Your task to perform on an android device: open app "HBO Max: Stream TV & Movies" (install if not already installed) and go to login screen Image 0: 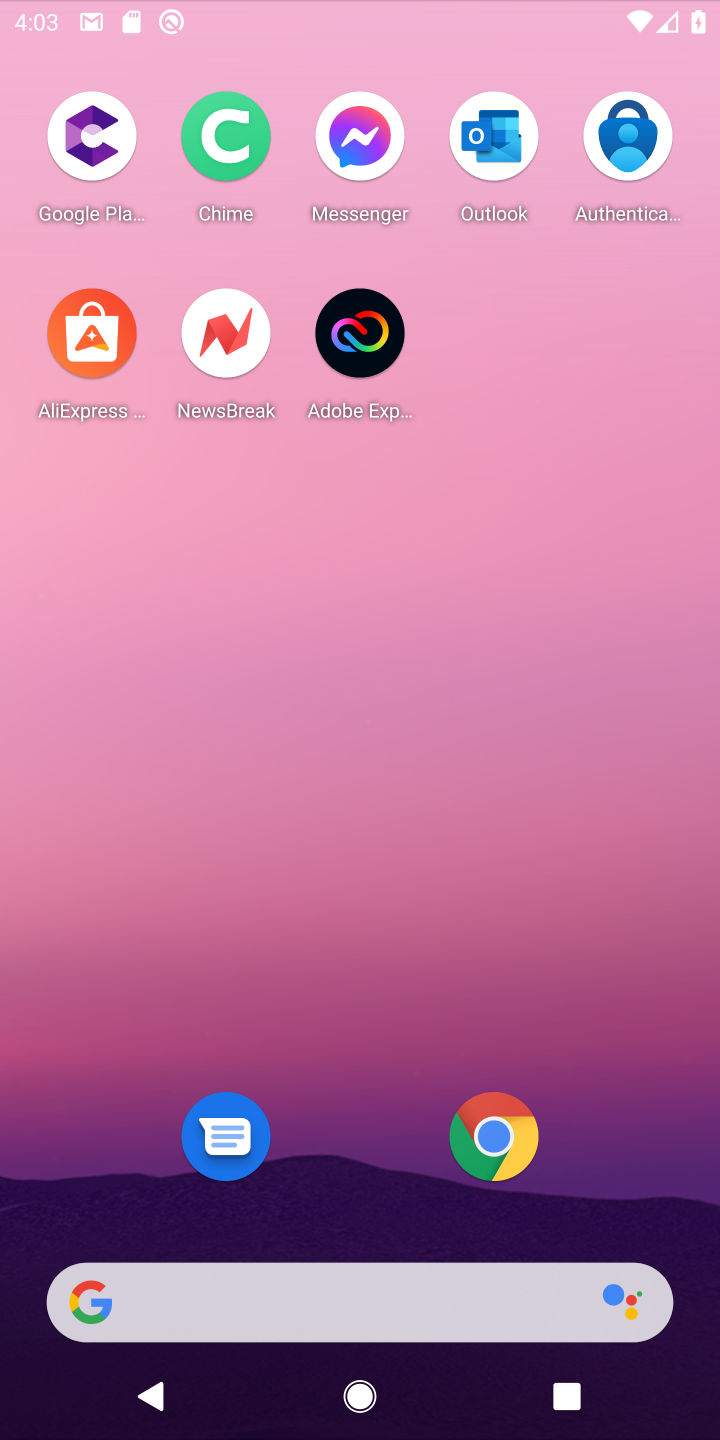
Step 0: press home button
Your task to perform on an android device: open app "HBO Max: Stream TV & Movies" (install if not already installed) and go to login screen Image 1: 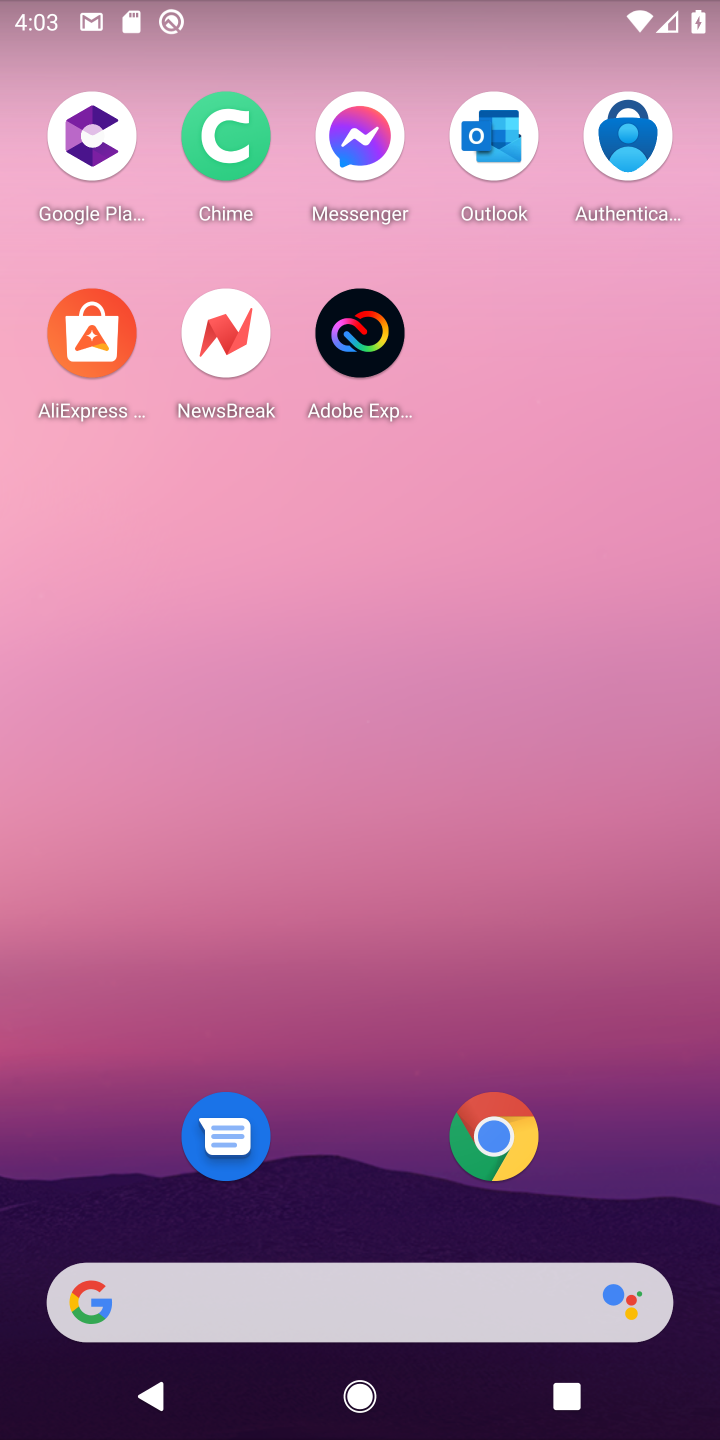
Step 1: drag from (315, 880) to (357, 13)
Your task to perform on an android device: open app "HBO Max: Stream TV & Movies" (install if not already installed) and go to login screen Image 2: 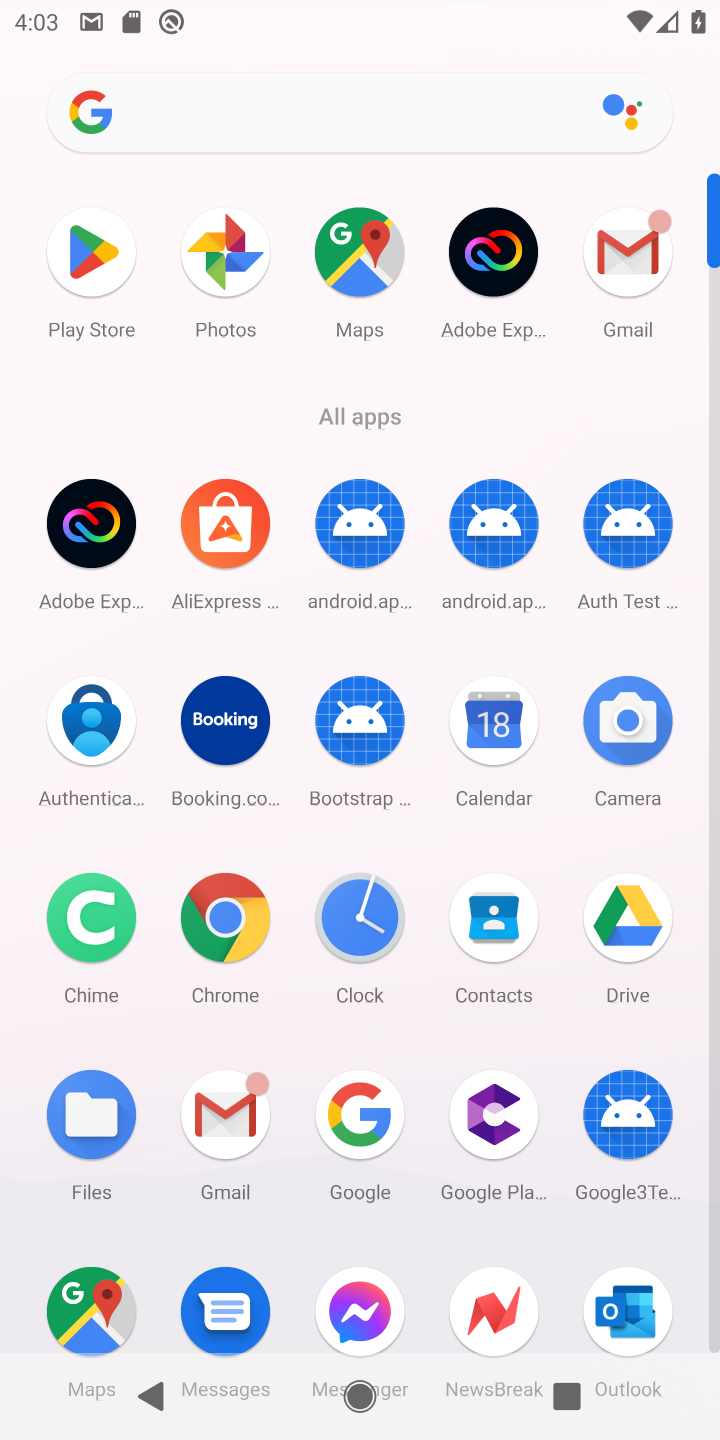
Step 2: click (87, 285)
Your task to perform on an android device: open app "HBO Max: Stream TV & Movies" (install if not already installed) and go to login screen Image 3: 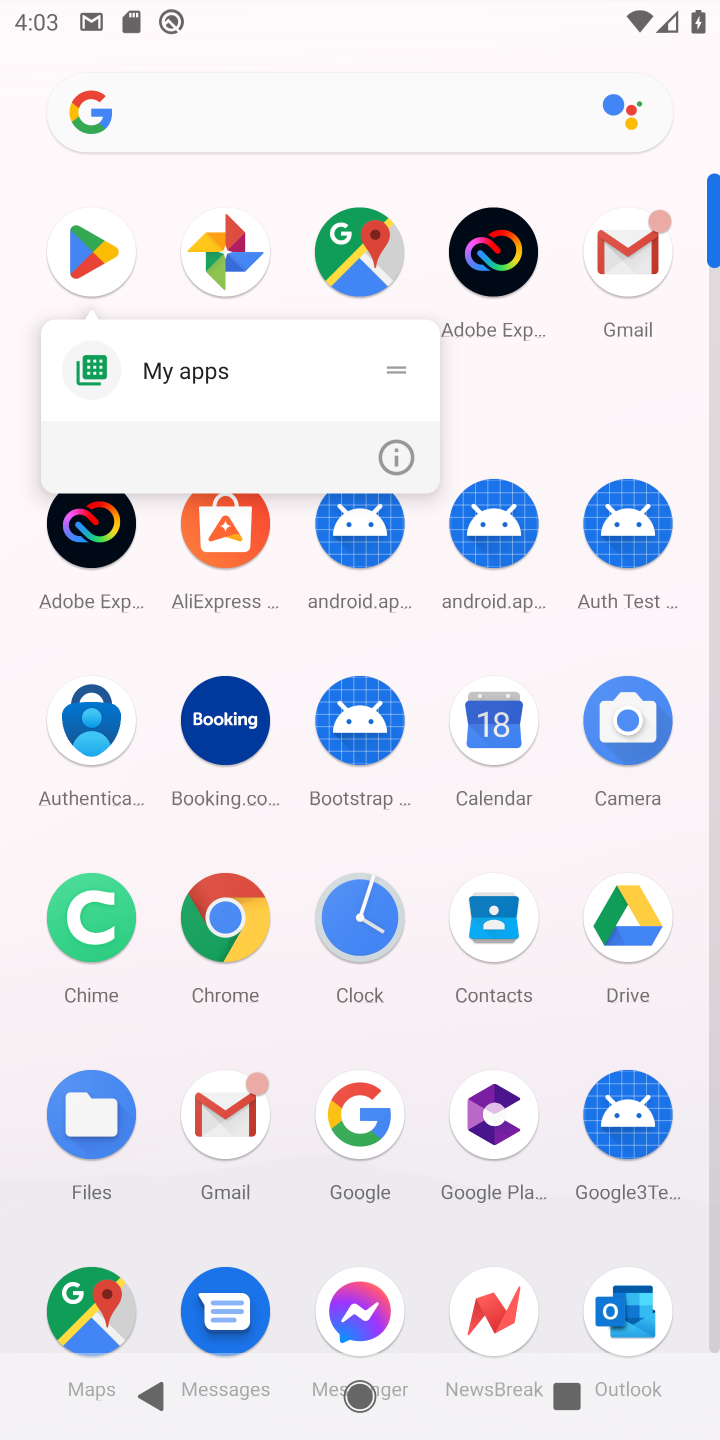
Step 3: click (92, 264)
Your task to perform on an android device: open app "HBO Max: Stream TV & Movies" (install if not already installed) and go to login screen Image 4: 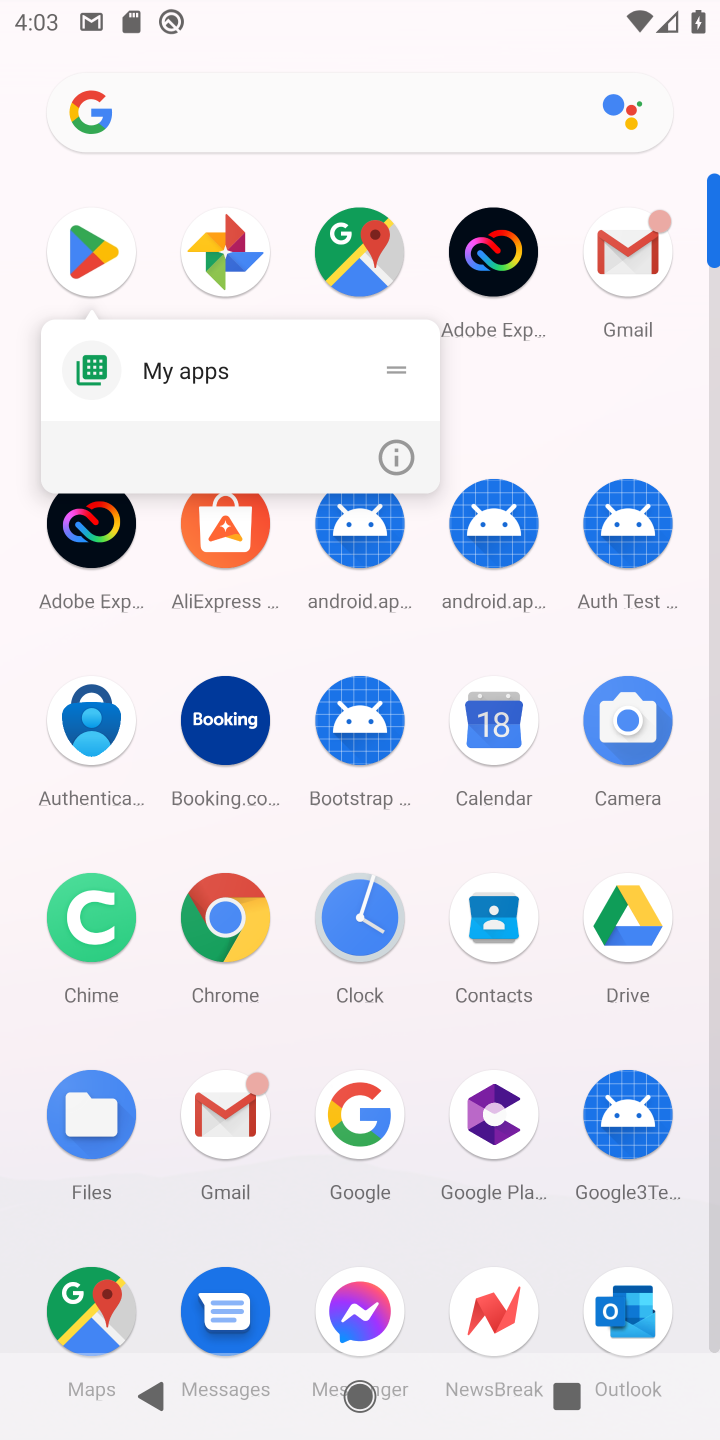
Step 4: click (90, 266)
Your task to perform on an android device: open app "HBO Max: Stream TV & Movies" (install if not already installed) and go to login screen Image 5: 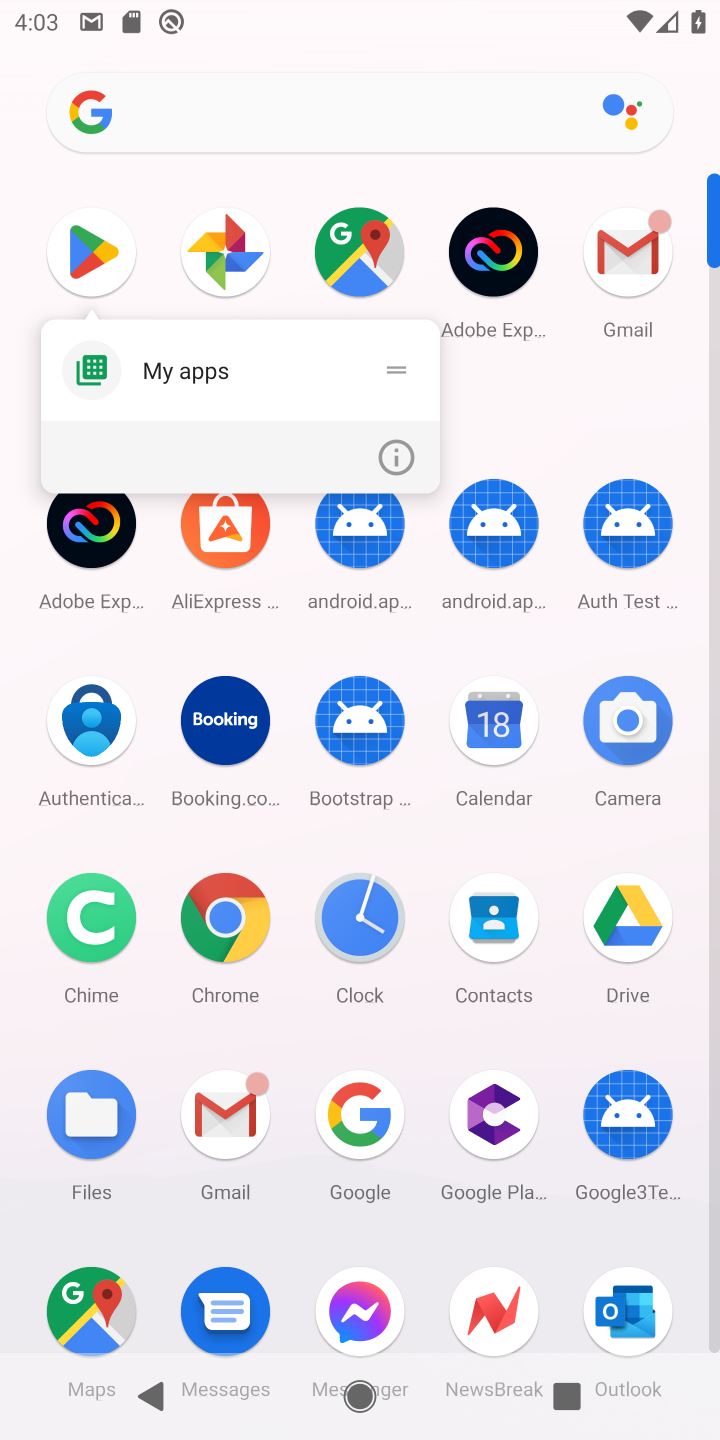
Step 5: click (90, 266)
Your task to perform on an android device: open app "HBO Max: Stream TV & Movies" (install if not already installed) and go to login screen Image 6: 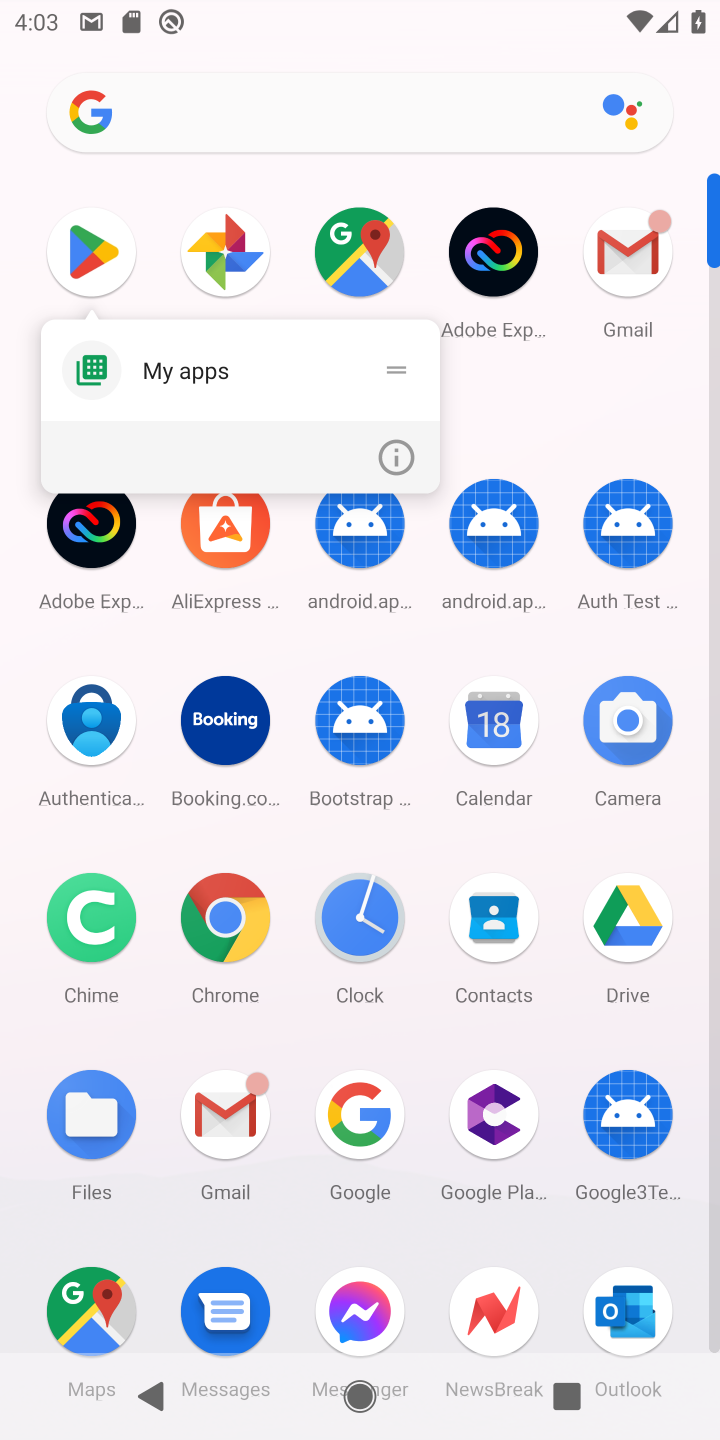
Step 6: click (65, 226)
Your task to perform on an android device: open app "HBO Max: Stream TV & Movies" (install if not already installed) and go to login screen Image 7: 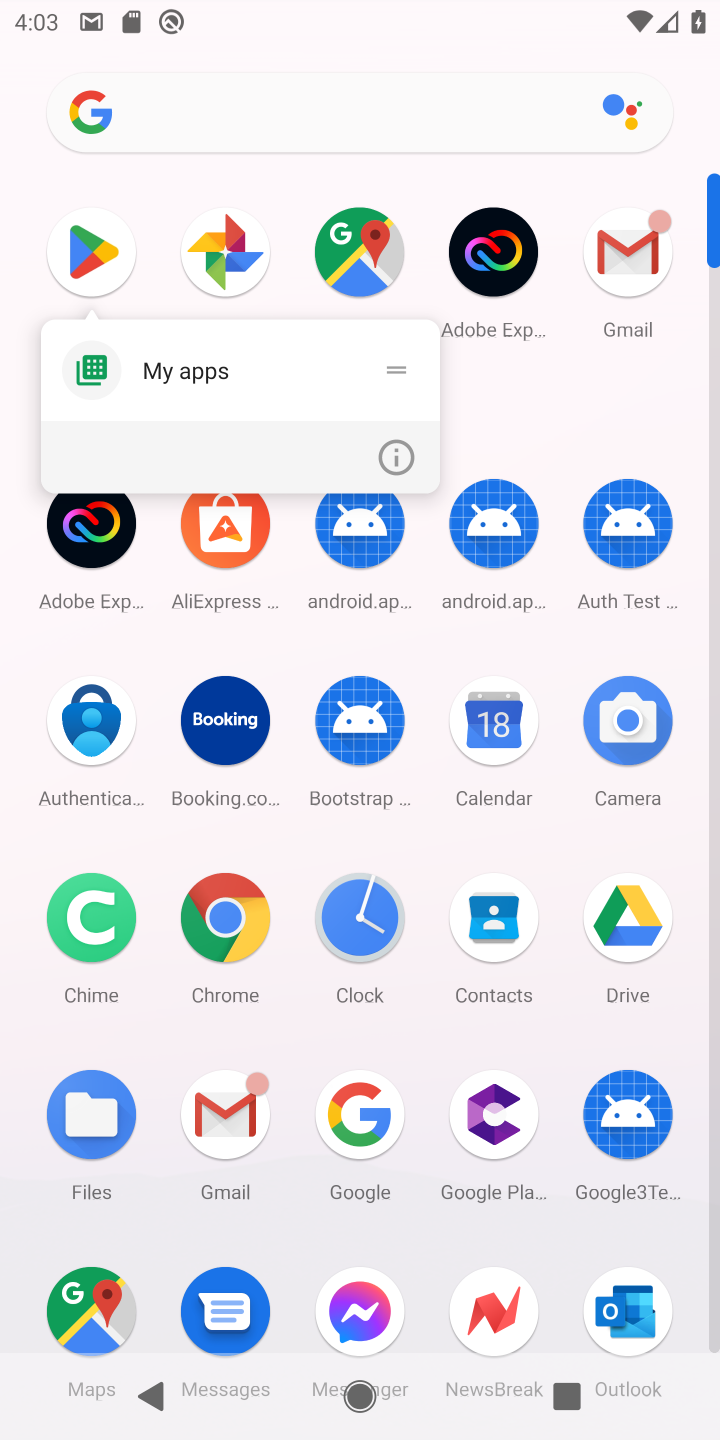
Step 7: click (71, 226)
Your task to perform on an android device: open app "HBO Max: Stream TV & Movies" (install if not already installed) and go to login screen Image 8: 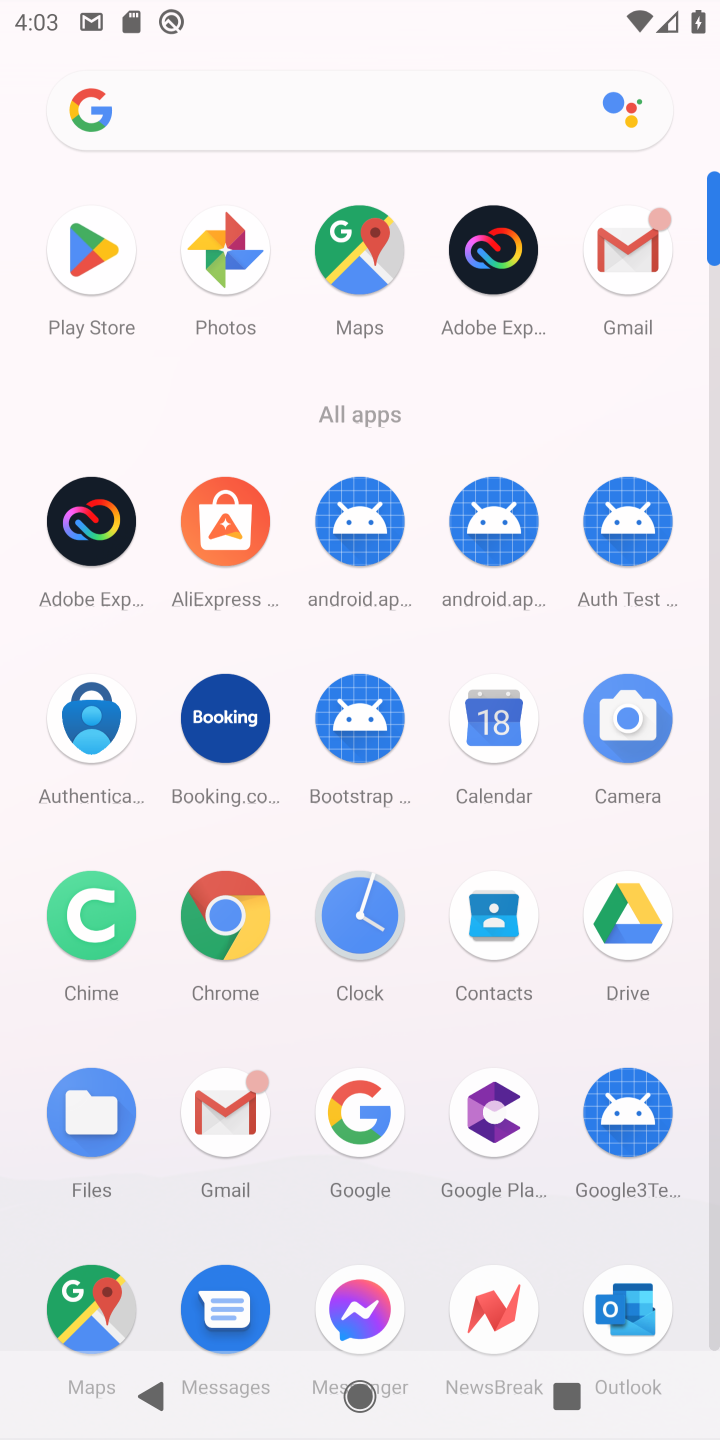
Step 8: click (77, 232)
Your task to perform on an android device: open app "HBO Max: Stream TV & Movies" (install if not already installed) and go to login screen Image 9: 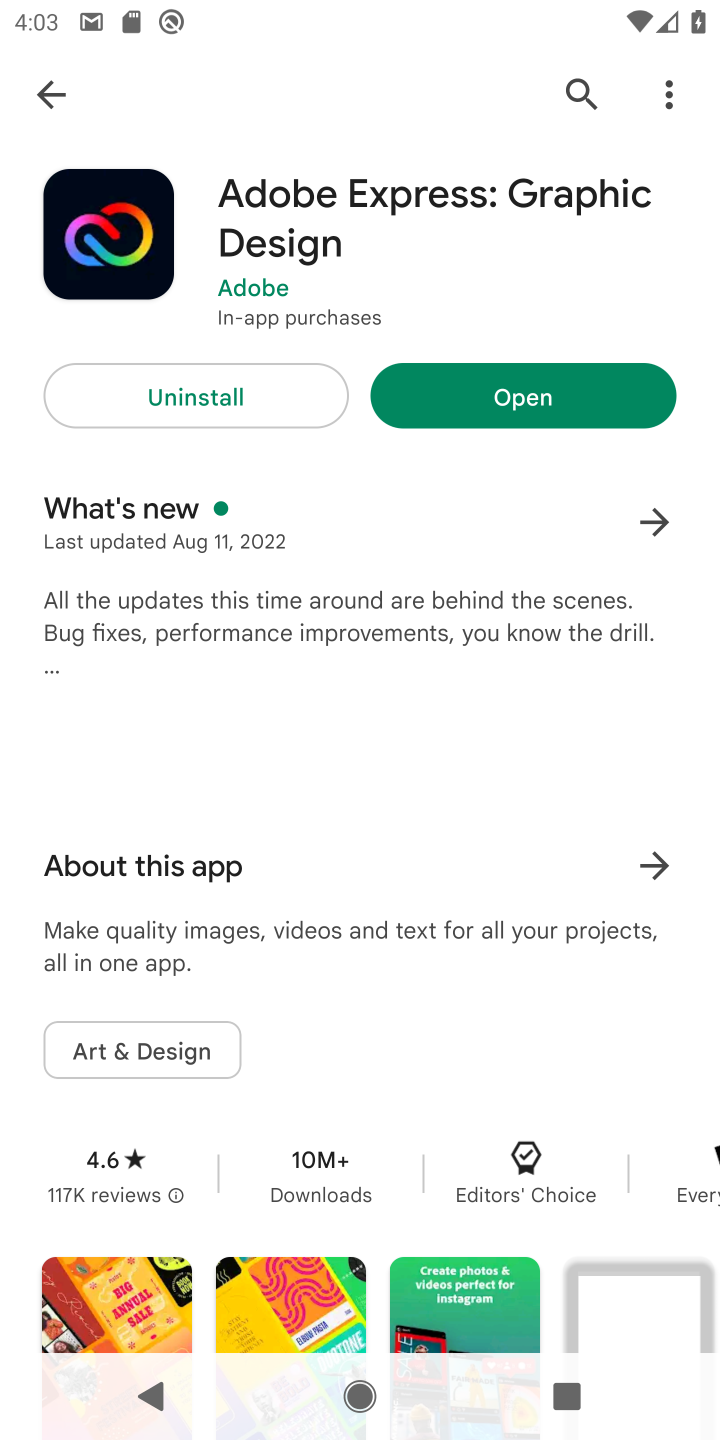
Step 9: click (57, 71)
Your task to perform on an android device: open app "HBO Max: Stream TV & Movies" (install if not already installed) and go to login screen Image 10: 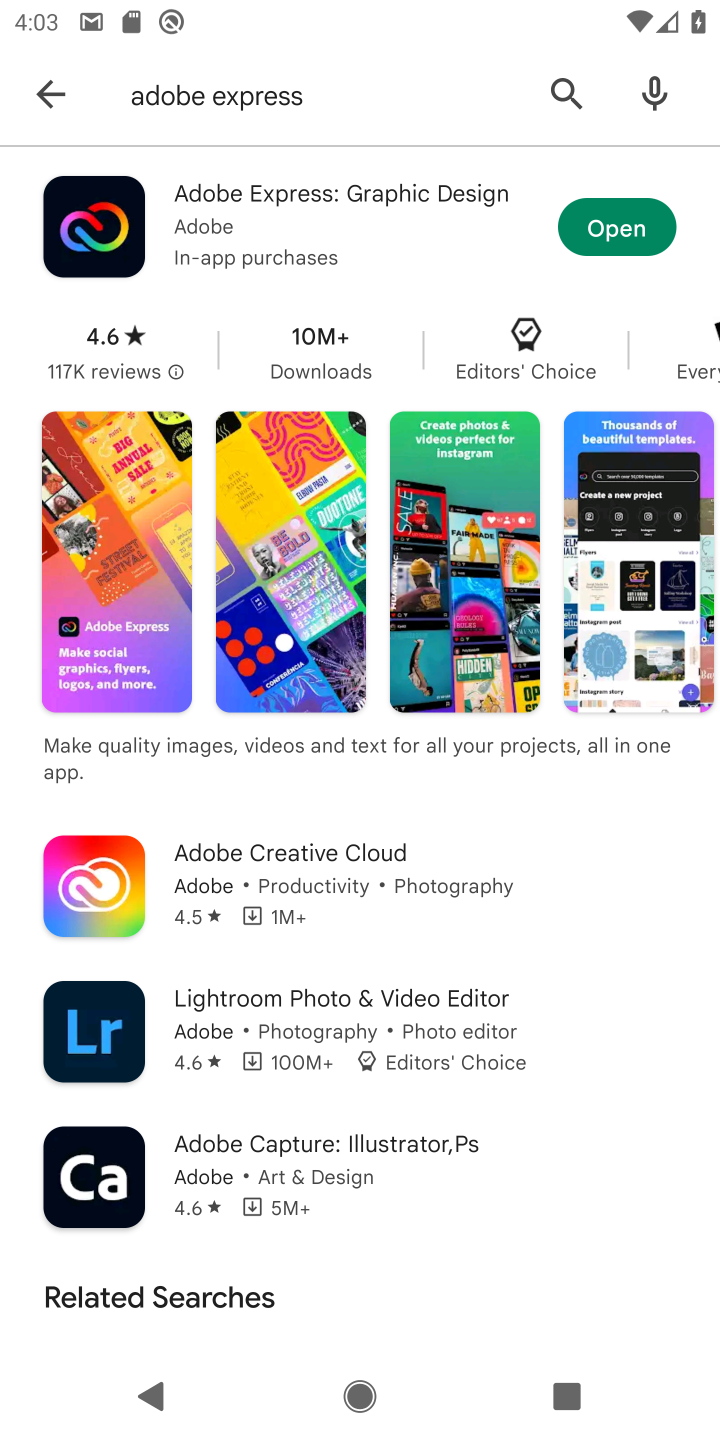
Step 10: click (283, 104)
Your task to perform on an android device: open app "HBO Max: Stream TV & Movies" (install if not already installed) and go to login screen Image 11: 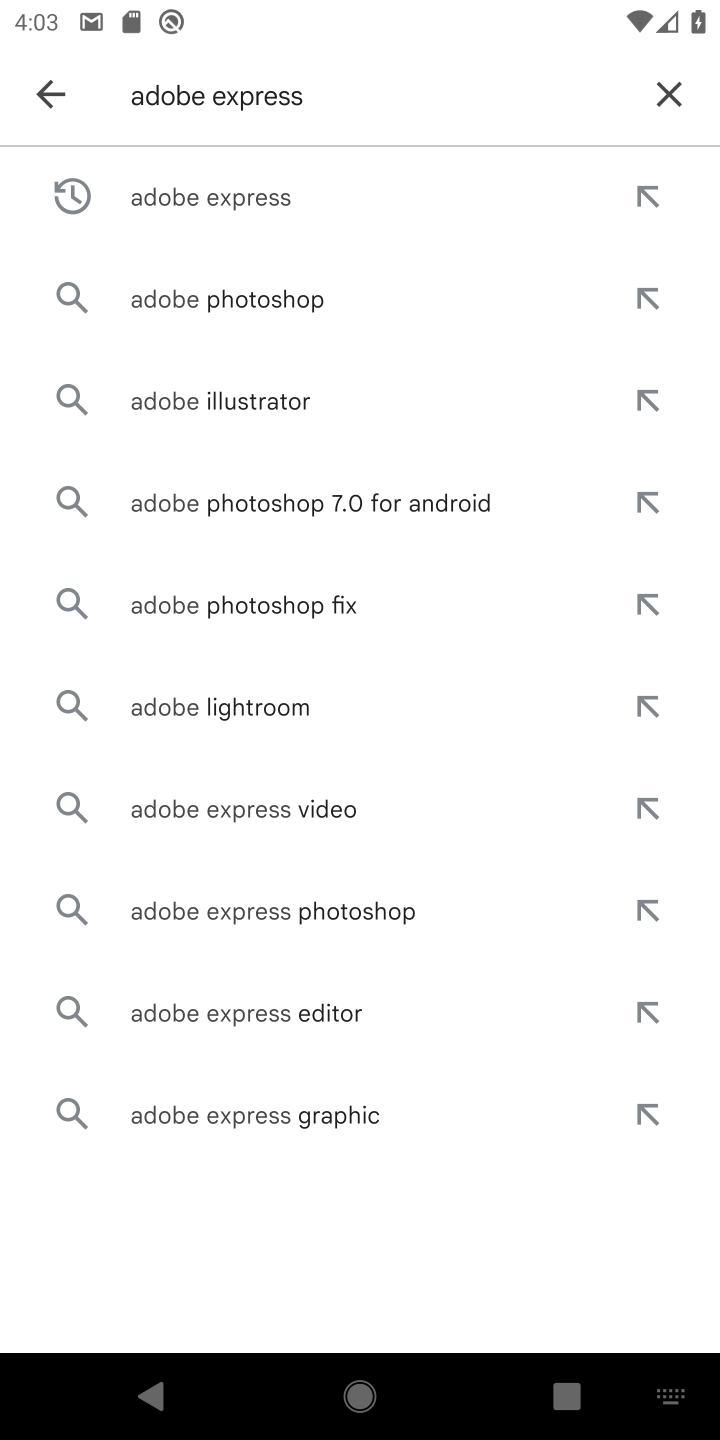
Step 11: click (658, 80)
Your task to perform on an android device: open app "HBO Max: Stream TV & Movies" (install if not already installed) and go to login screen Image 12: 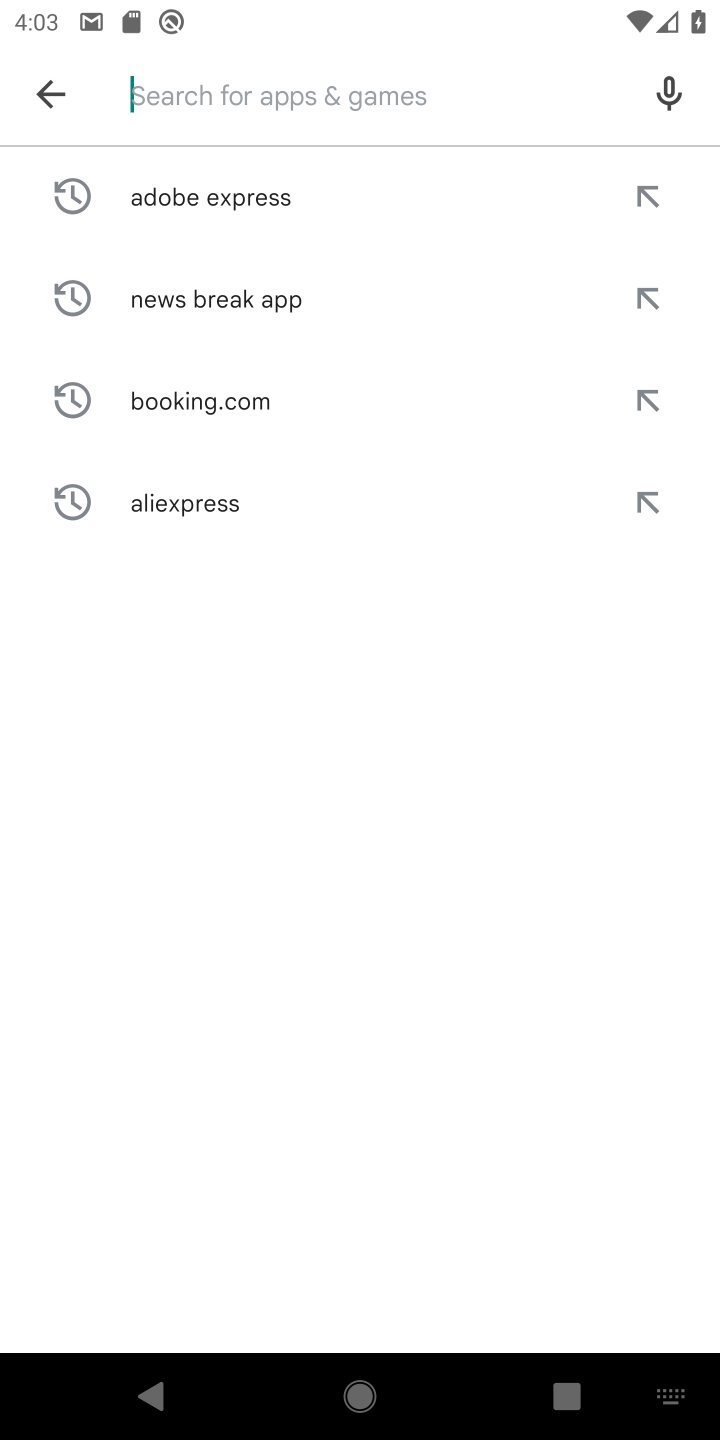
Step 12: type "HBO Max"
Your task to perform on an android device: open app "HBO Max: Stream TV & Movies" (install if not already installed) and go to login screen Image 13: 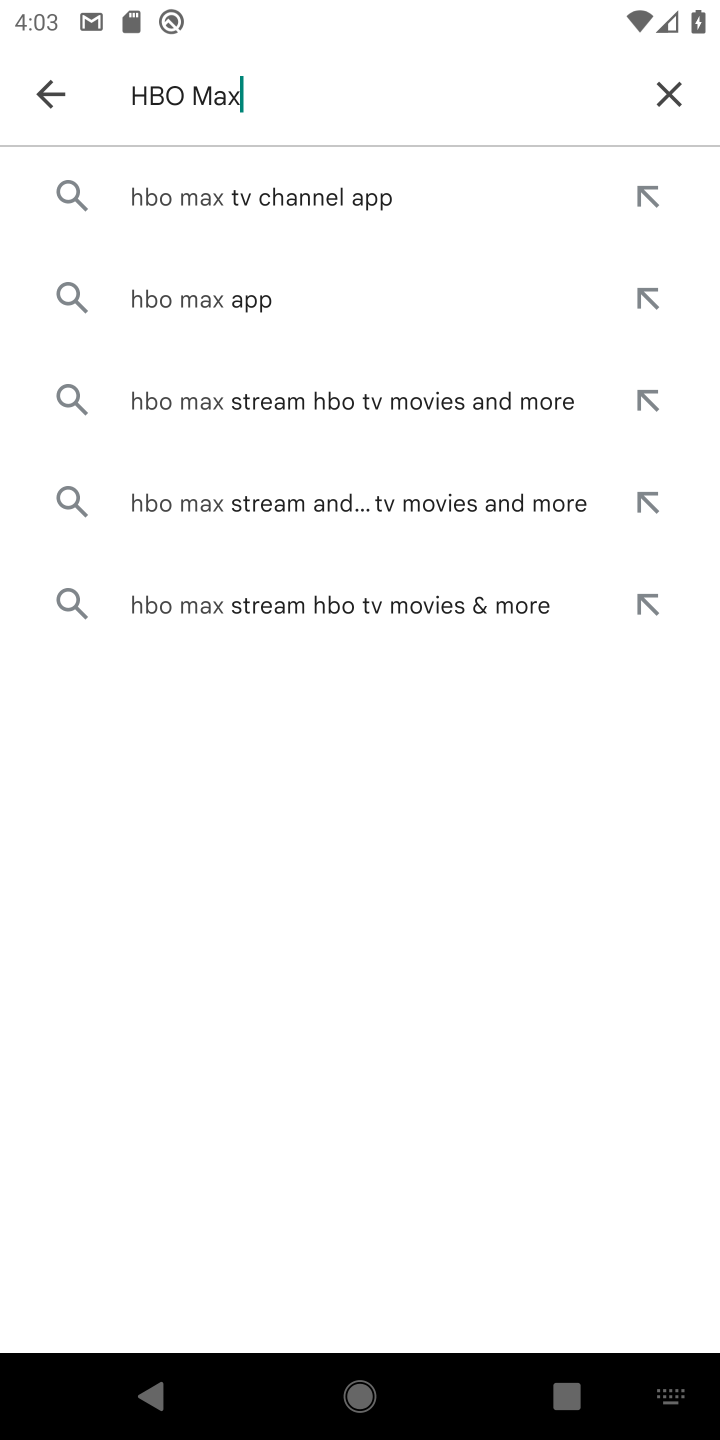
Step 13: click (383, 205)
Your task to perform on an android device: open app "HBO Max: Stream TV & Movies" (install if not already installed) and go to login screen Image 14: 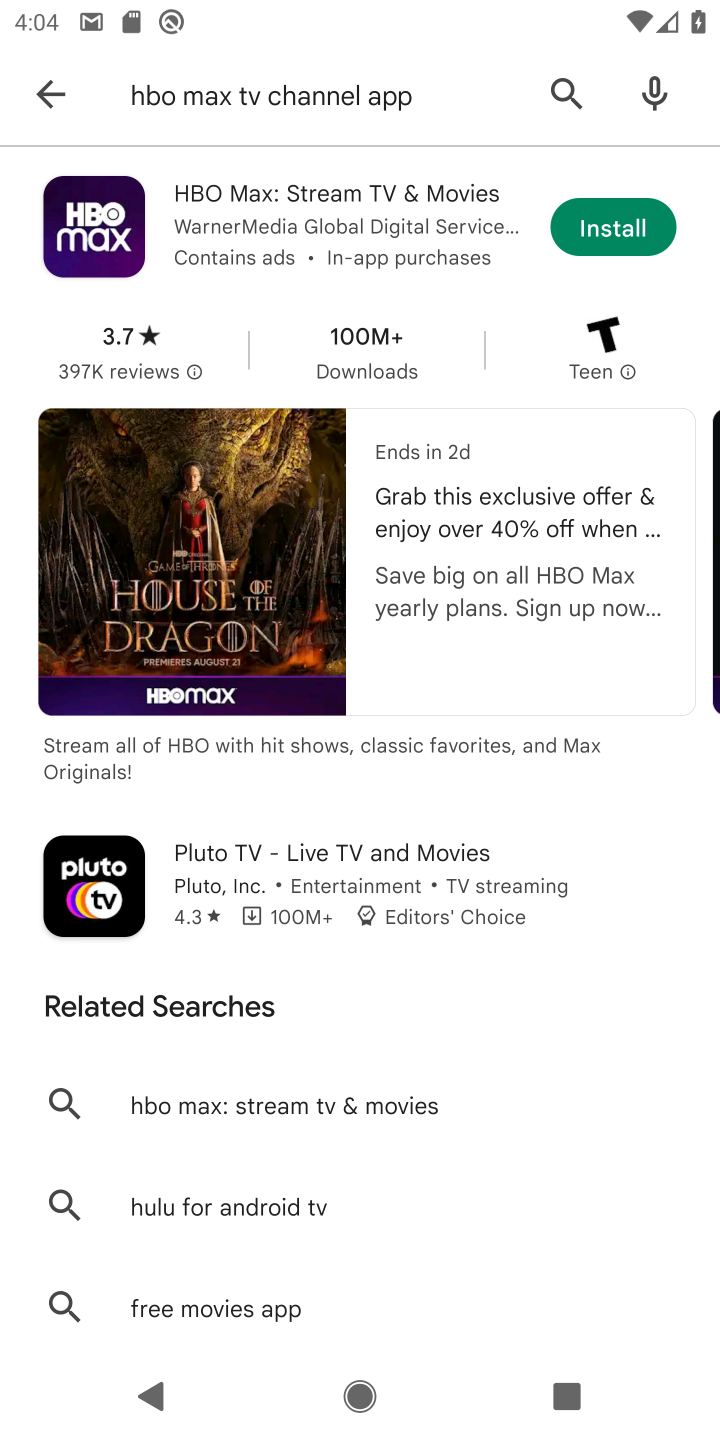
Step 14: click (644, 226)
Your task to perform on an android device: open app "HBO Max: Stream TV & Movies" (install if not already installed) and go to login screen Image 15: 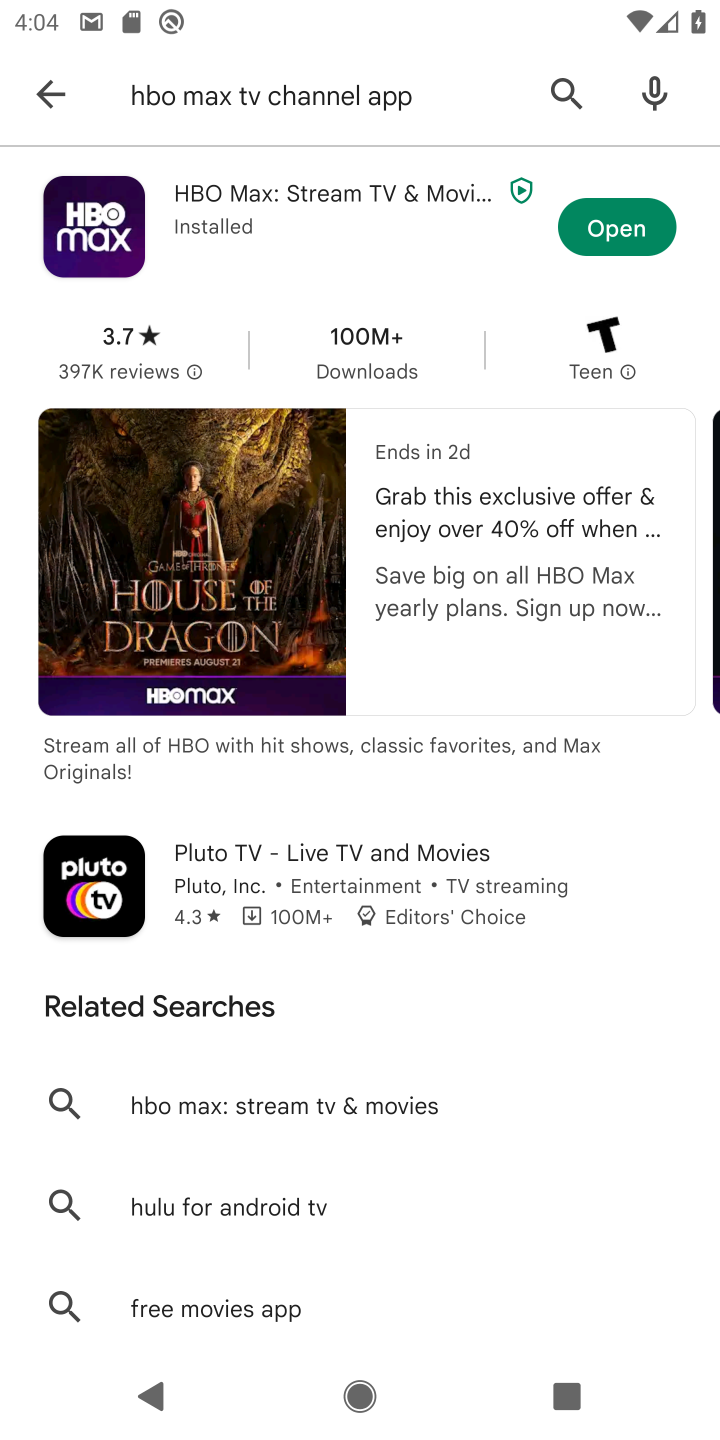
Step 15: click (587, 215)
Your task to perform on an android device: open app "HBO Max: Stream TV & Movies" (install if not already installed) and go to login screen Image 16: 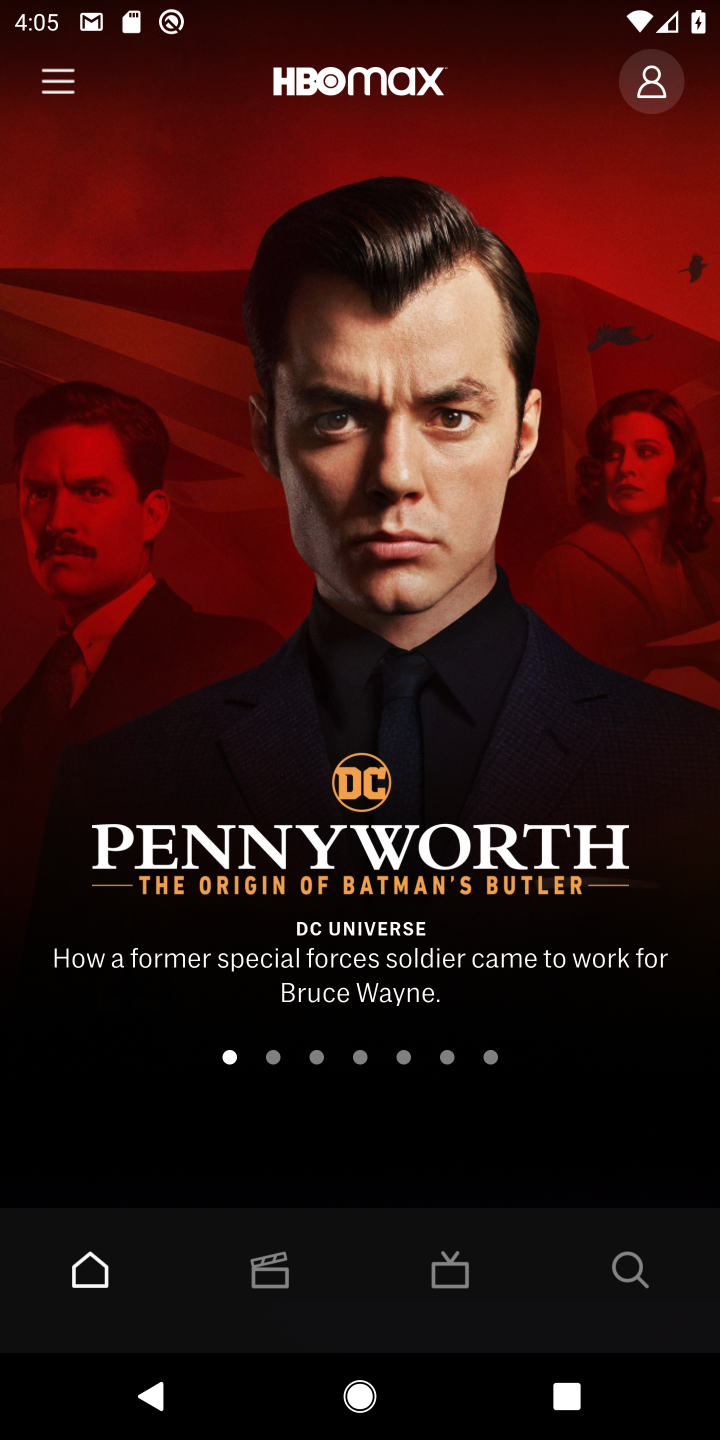
Step 16: click (220, 741)
Your task to perform on an android device: open app "HBO Max: Stream TV & Movies" (install if not already installed) and go to login screen Image 17: 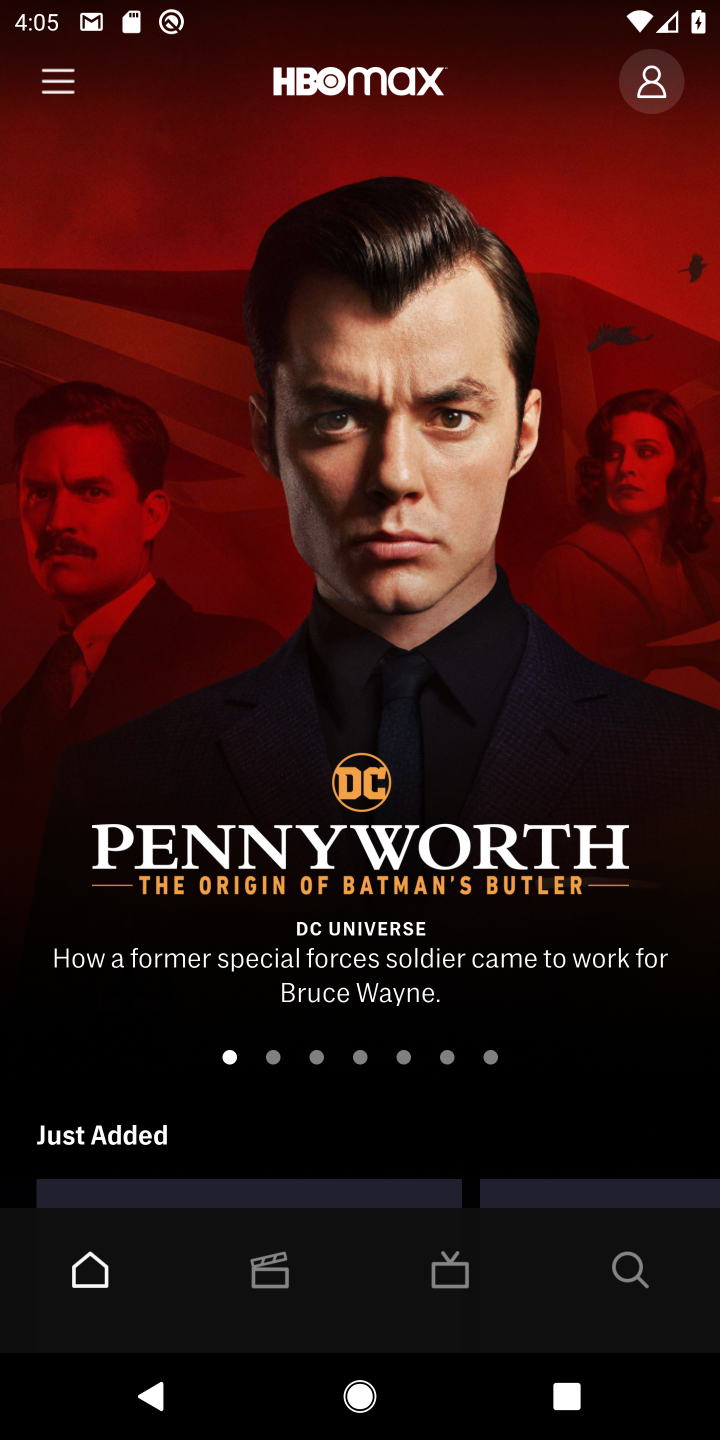
Step 17: click (656, 78)
Your task to perform on an android device: open app "HBO Max: Stream TV & Movies" (install if not already installed) and go to login screen Image 18: 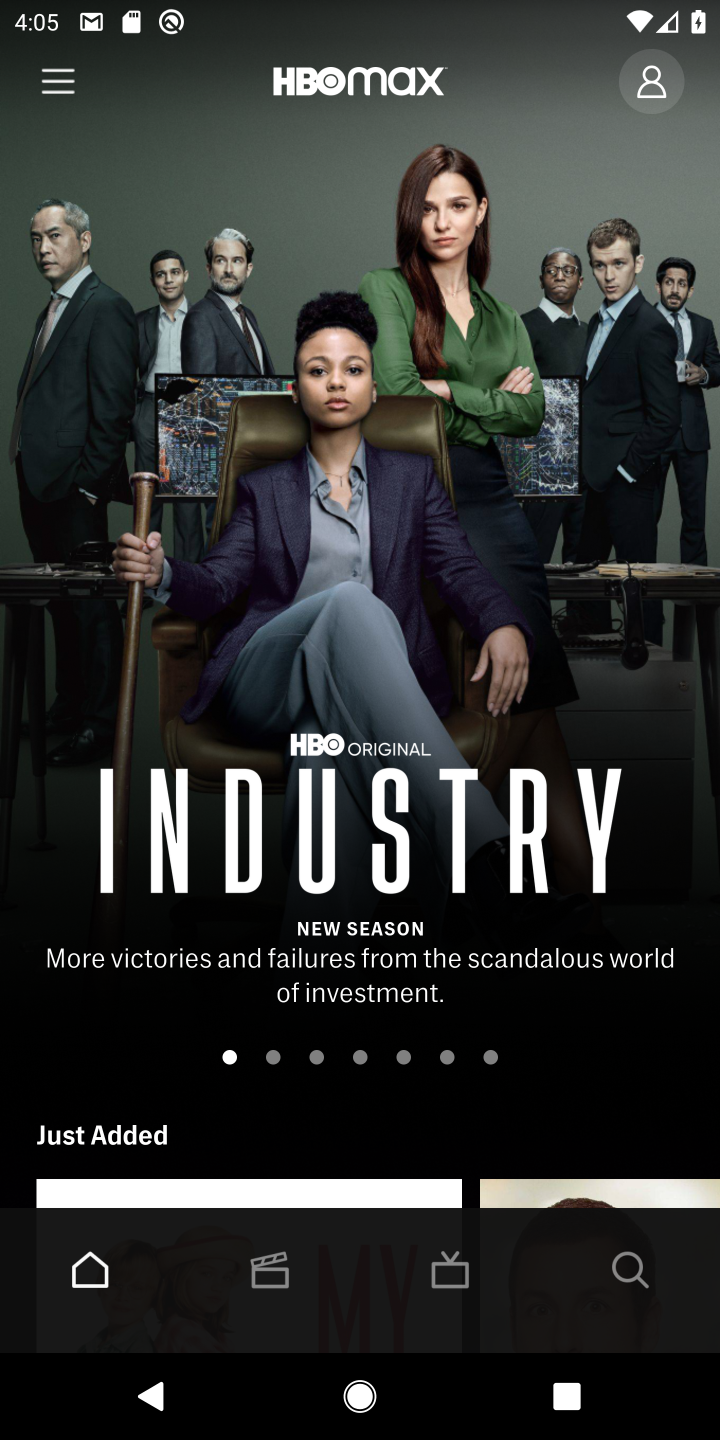
Step 18: click (657, 88)
Your task to perform on an android device: open app "HBO Max: Stream TV & Movies" (install if not already installed) and go to login screen Image 19: 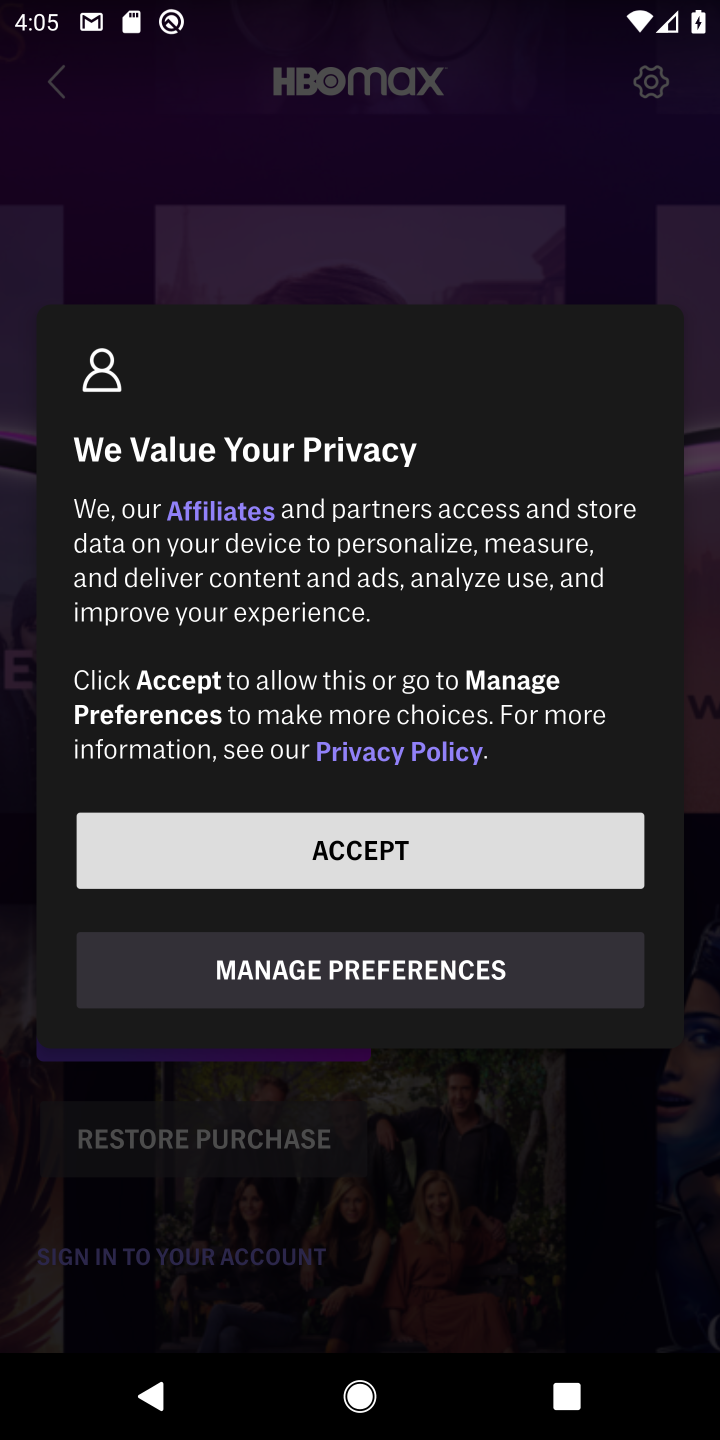
Step 19: click (417, 838)
Your task to perform on an android device: open app "HBO Max: Stream TV & Movies" (install if not already installed) and go to login screen Image 20: 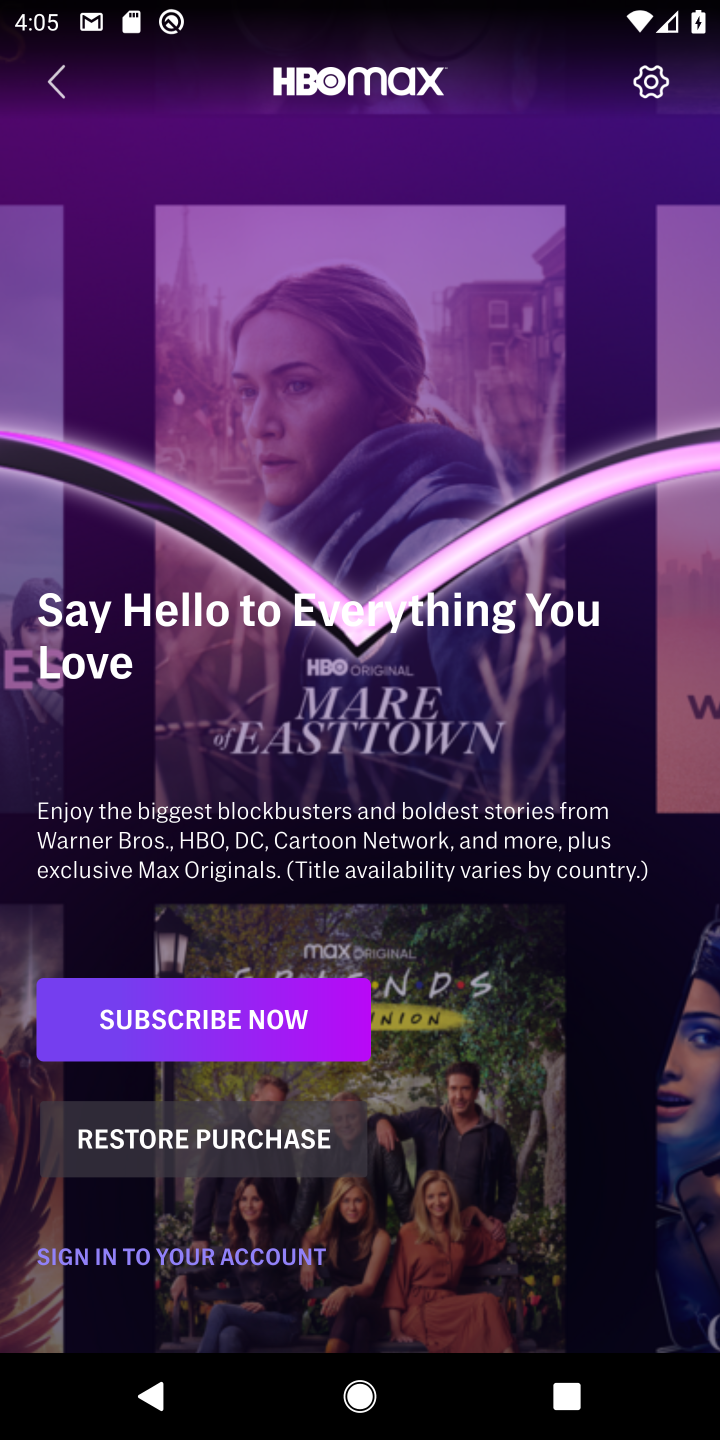
Step 20: click (167, 1258)
Your task to perform on an android device: open app "HBO Max: Stream TV & Movies" (install if not already installed) and go to login screen Image 21: 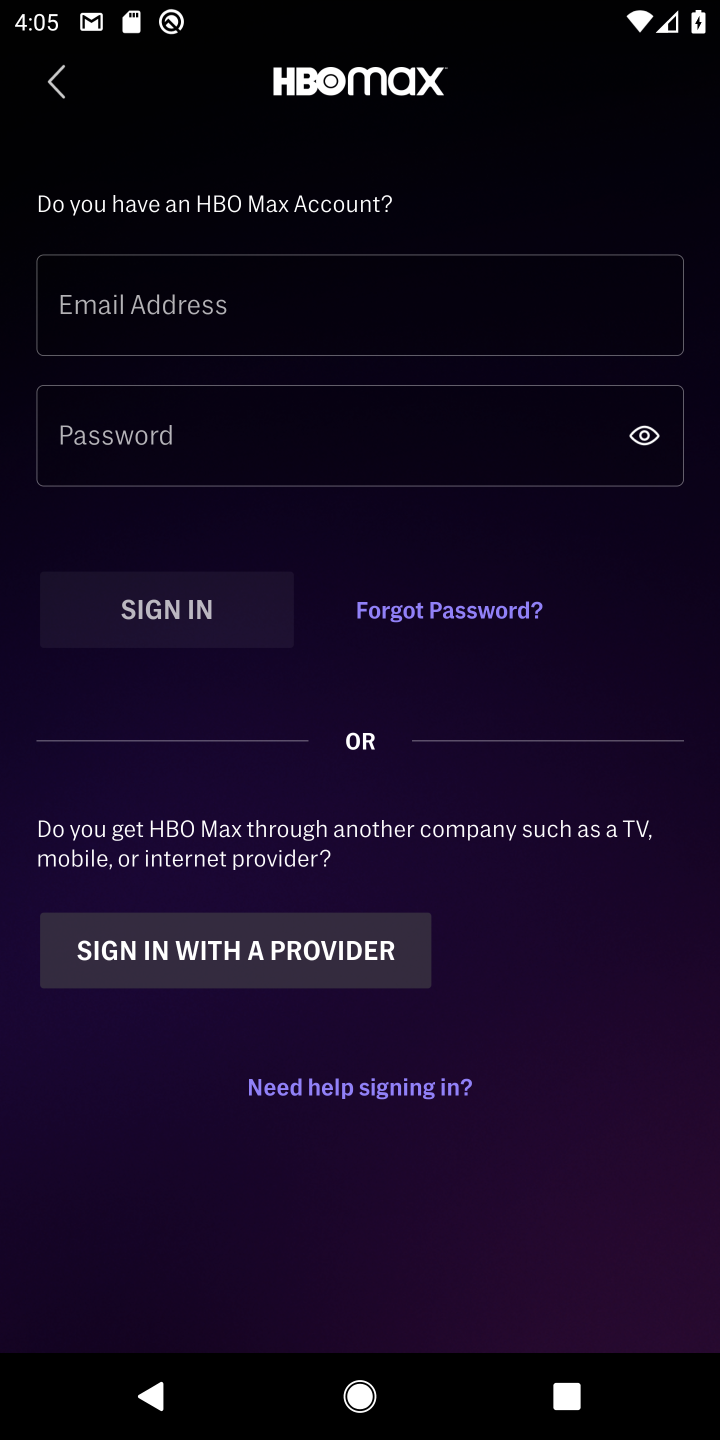
Step 21: task complete